Your task to perform on an android device: turn on notifications settings in the gmail app Image 0: 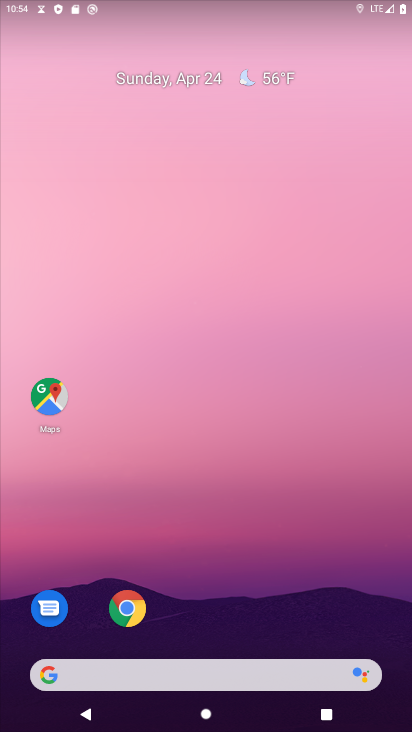
Step 0: drag from (199, 636) to (191, 39)
Your task to perform on an android device: turn on notifications settings in the gmail app Image 1: 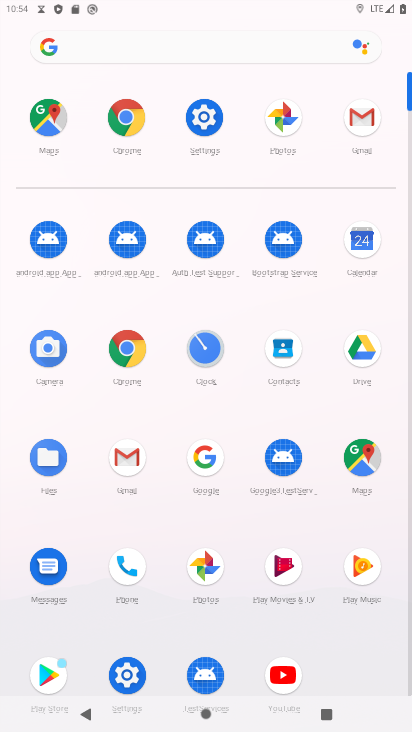
Step 1: click (129, 458)
Your task to perform on an android device: turn on notifications settings in the gmail app Image 2: 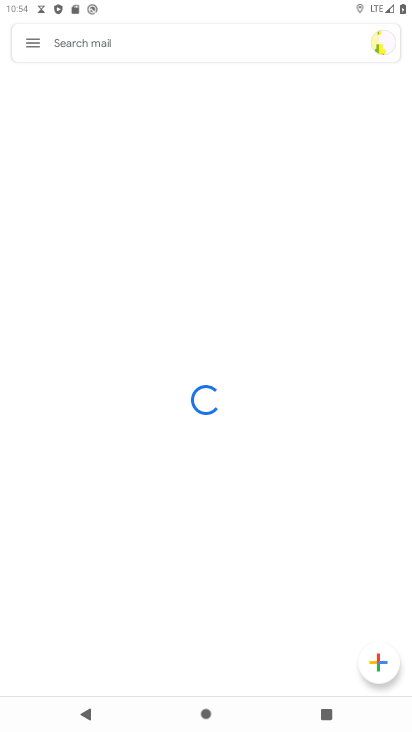
Step 2: click (34, 37)
Your task to perform on an android device: turn on notifications settings in the gmail app Image 3: 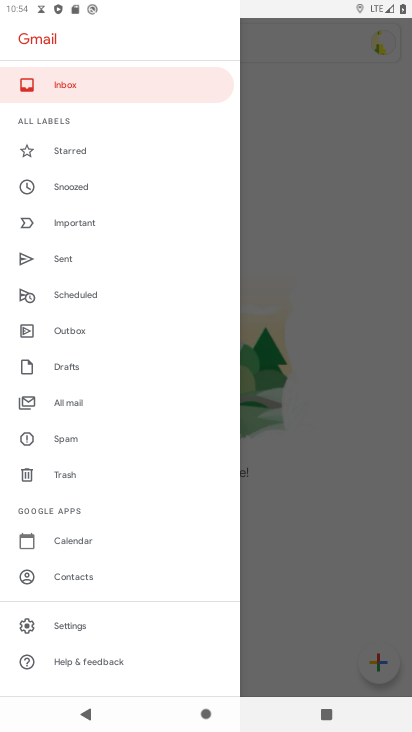
Step 3: click (53, 620)
Your task to perform on an android device: turn on notifications settings in the gmail app Image 4: 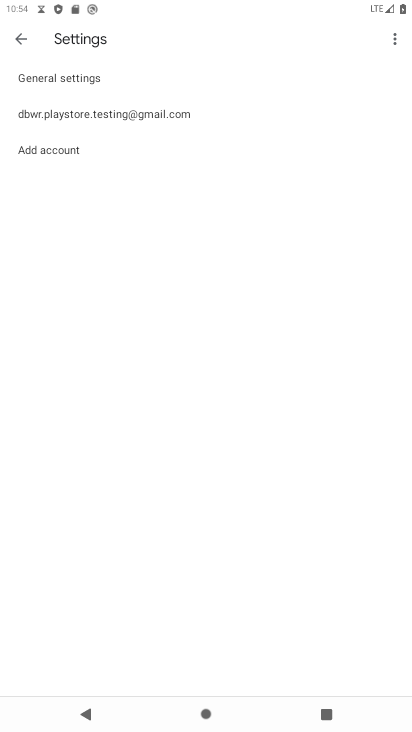
Step 4: drag from (78, 114) to (66, 55)
Your task to perform on an android device: turn on notifications settings in the gmail app Image 5: 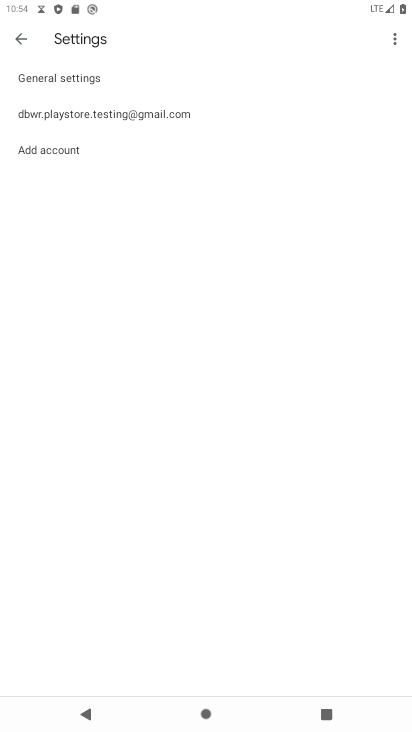
Step 5: click (55, 76)
Your task to perform on an android device: turn on notifications settings in the gmail app Image 6: 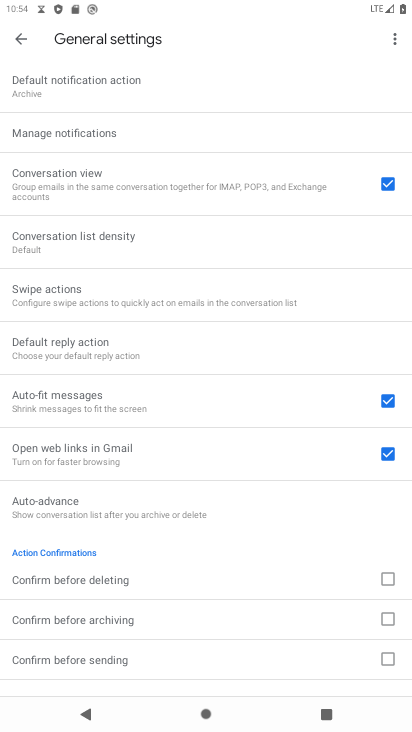
Step 6: click (107, 130)
Your task to perform on an android device: turn on notifications settings in the gmail app Image 7: 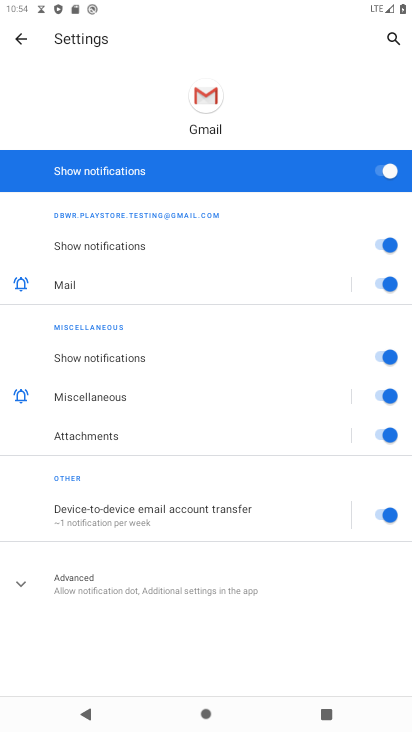
Step 7: task complete